Your task to perform on an android device: Open Google Chrome and open the bookmarks view Image 0: 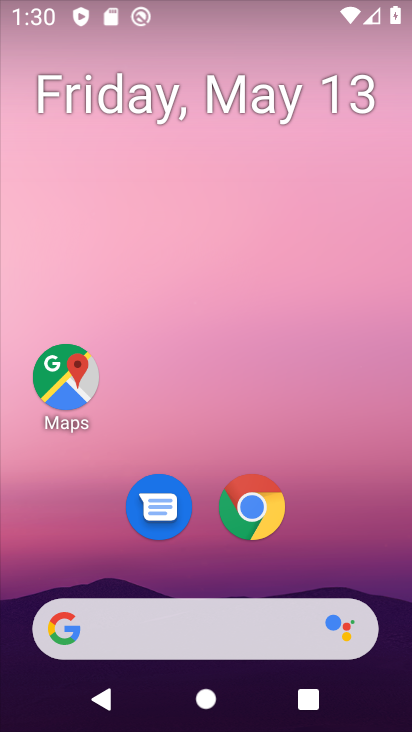
Step 0: drag from (193, 593) to (191, 47)
Your task to perform on an android device: Open Google Chrome and open the bookmarks view Image 1: 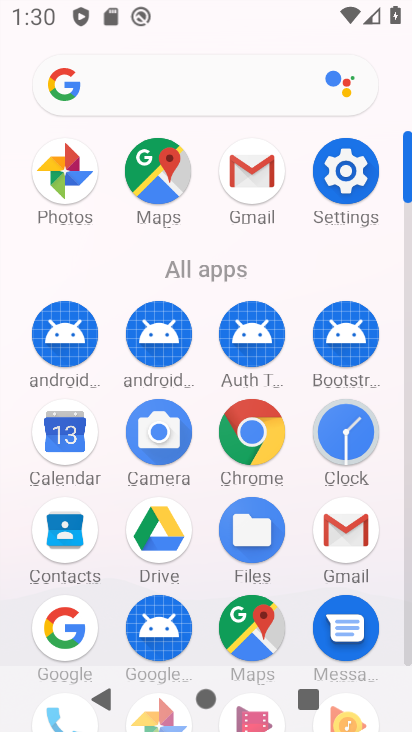
Step 1: click (270, 416)
Your task to perform on an android device: Open Google Chrome and open the bookmarks view Image 2: 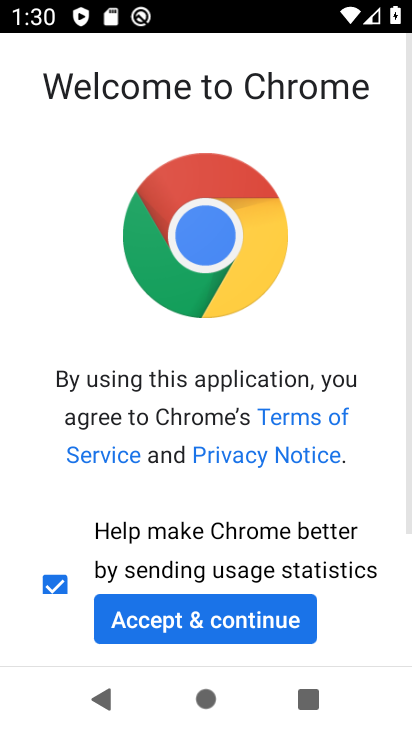
Step 2: click (244, 639)
Your task to perform on an android device: Open Google Chrome and open the bookmarks view Image 3: 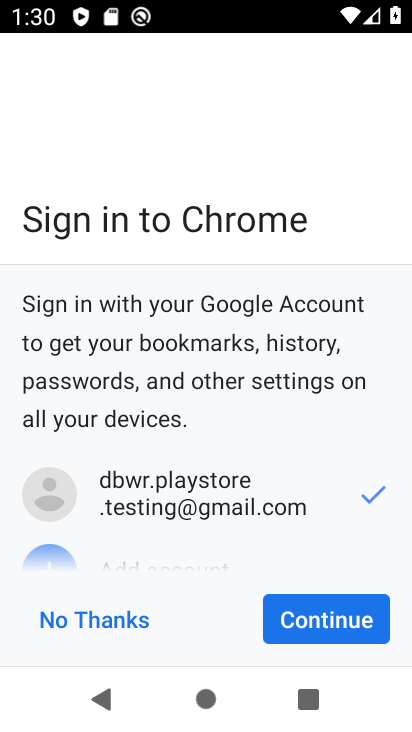
Step 3: click (292, 625)
Your task to perform on an android device: Open Google Chrome and open the bookmarks view Image 4: 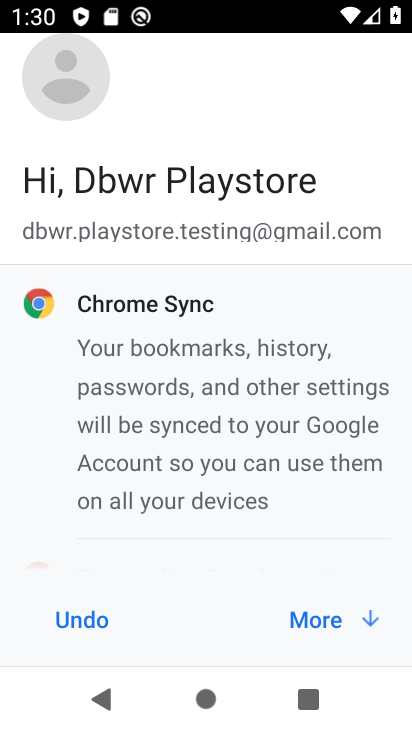
Step 4: click (335, 633)
Your task to perform on an android device: Open Google Chrome and open the bookmarks view Image 5: 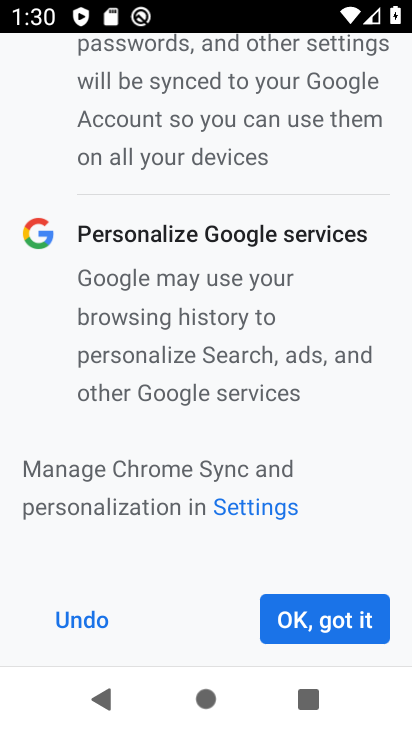
Step 5: click (344, 620)
Your task to perform on an android device: Open Google Chrome and open the bookmarks view Image 6: 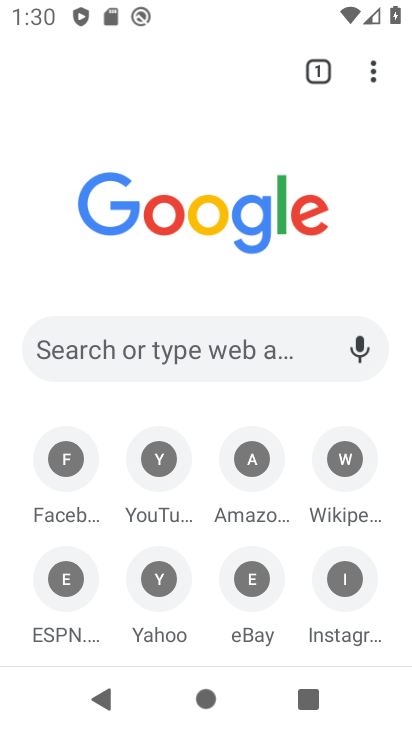
Step 6: task complete